Your task to perform on an android device: clear history in the chrome app Image 0: 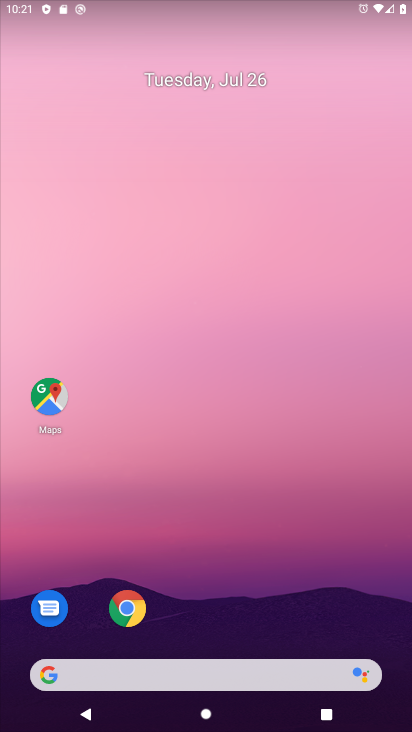
Step 0: click (130, 613)
Your task to perform on an android device: clear history in the chrome app Image 1: 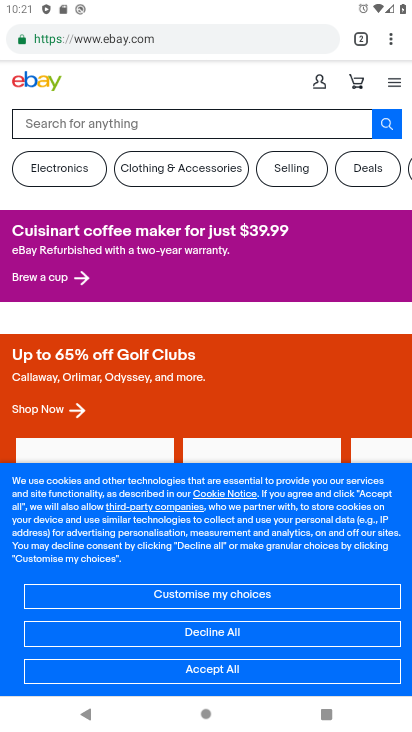
Step 1: click (390, 44)
Your task to perform on an android device: clear history in the chrome app Image 2: 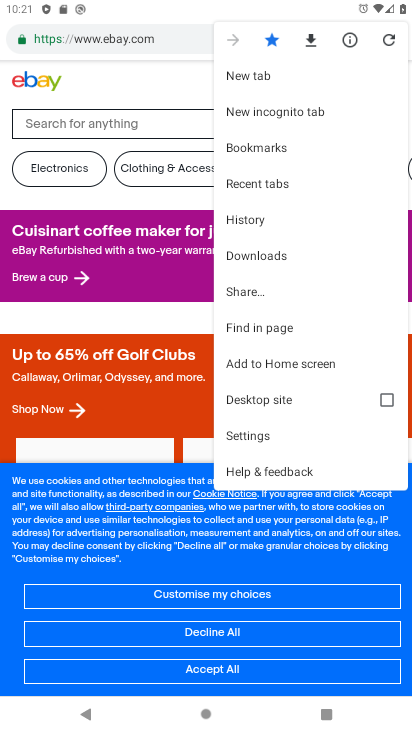
Step 2: click (249, 220)
Your task to perform on an android device: clear history in the chrome app Image 3: 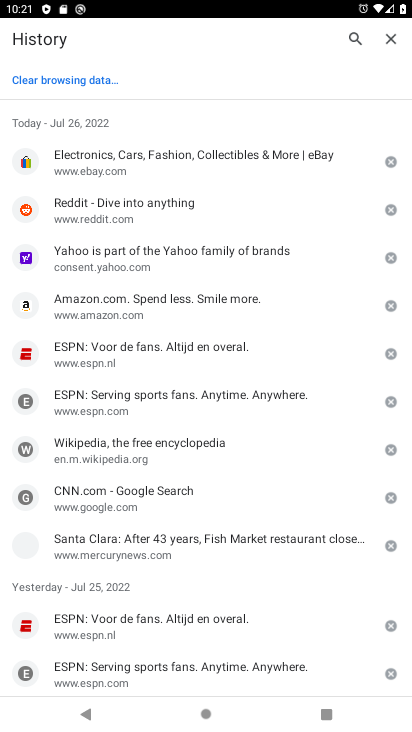
Step 3: click (73, 76)
Your task to perform on an android device: clear history in the chrome app Image 4: 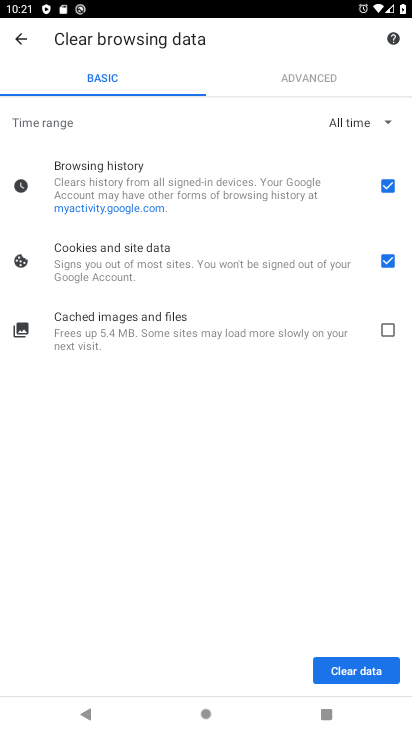
Step 4: click (387, 258)
Your task to perform on an android device: clear history in the chrome app Image 5: 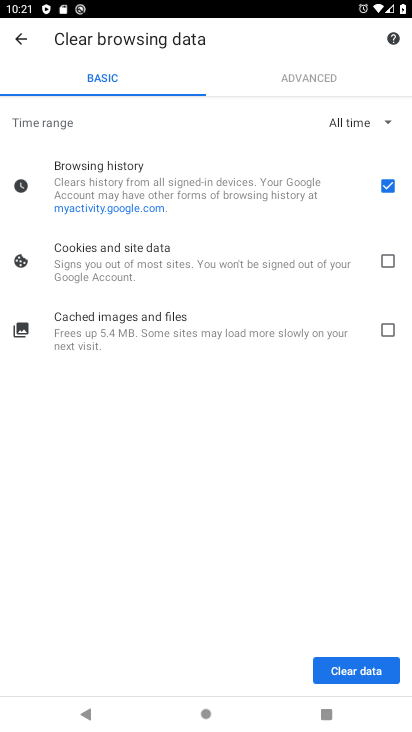
Step 5: click (355, 669)
Your task to perform on an android device: clear history in the chrome app Image 6: 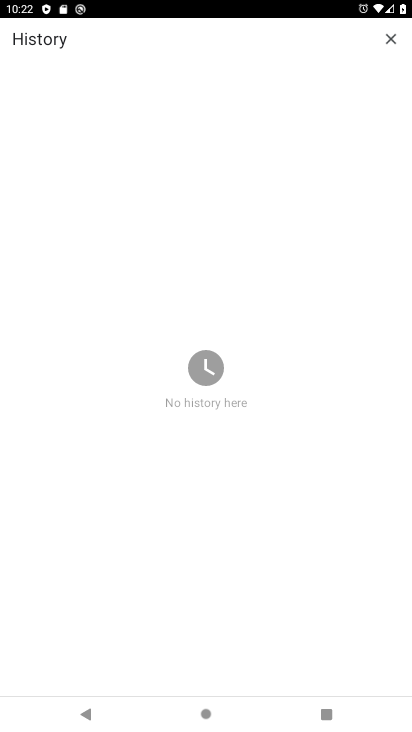
Step 6: task complete